Your task to perform on an android device: empty trash in the gmail app Image 0: 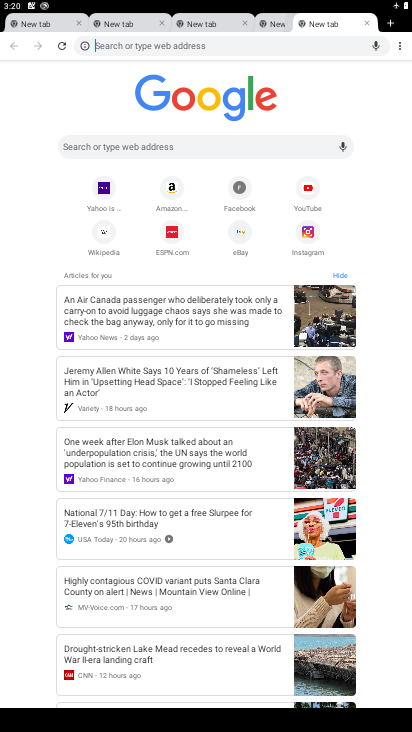
Step 0: press home button
Your task to perform on an android device: empty trash in the gmail app Image 1: 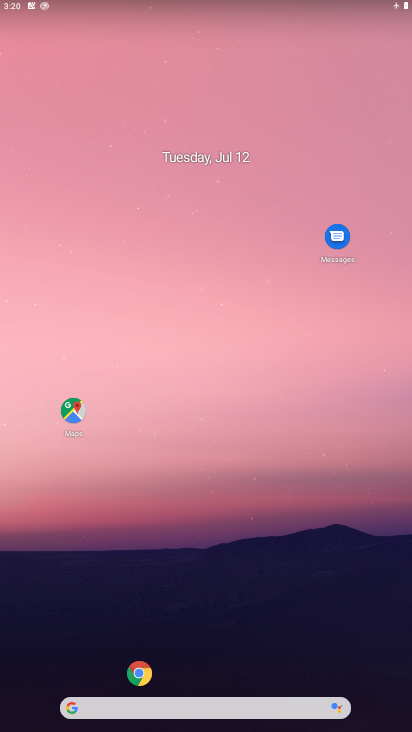
Step 1: drag from (56, 613) to (215, 188)
Your task to perform on an android device: empty trash in the gmail app Image 2: 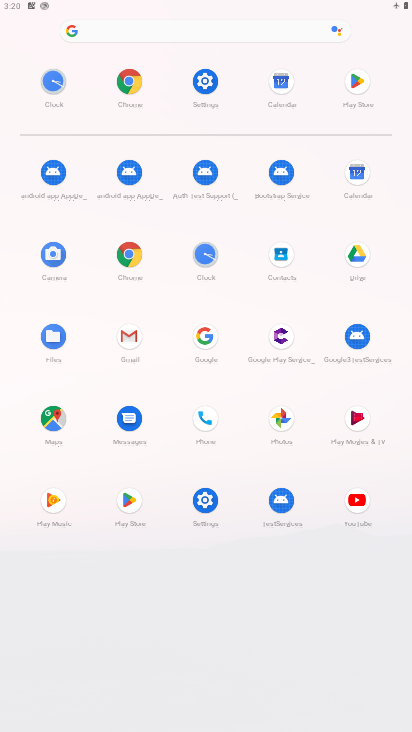
Step 2: click (128, 350)
Your task to perform on an android device: empty trash in the gmail app Image 3: 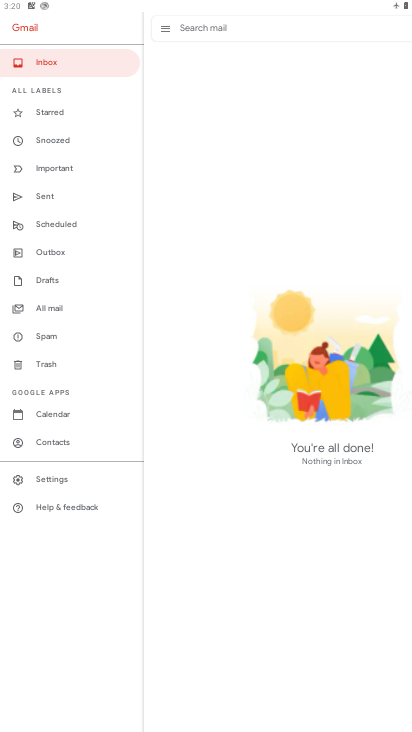
Step 3: click (53, 366)
Your task to perform on an android device: empty trash in the gmail app Image 4: 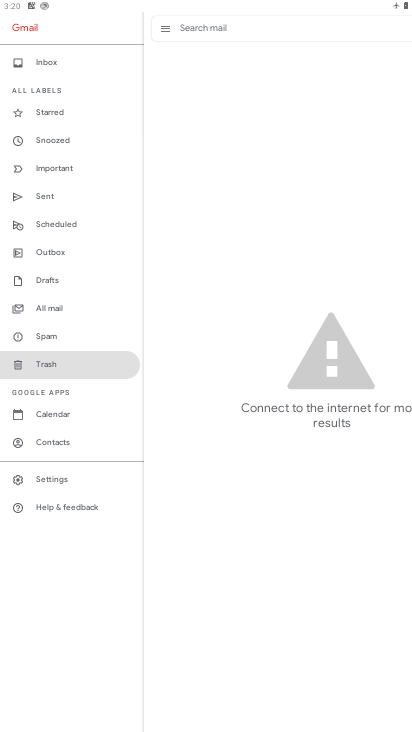
Step 4: task complete